Your task to perform on an android device: find snoozed emails in the gmail app Image 0: 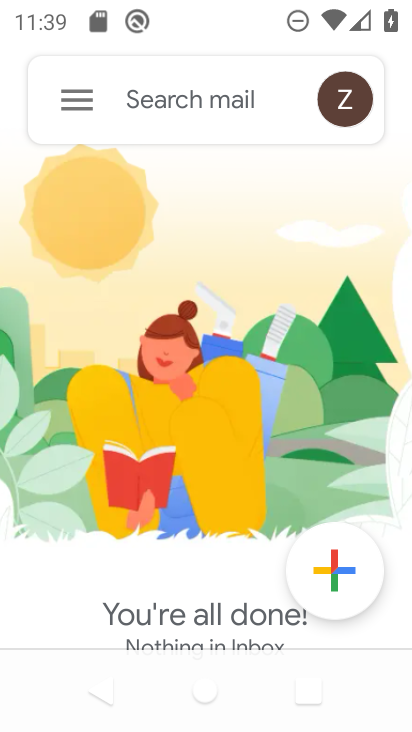
Step 0: press home button
Your task to perform on an android device: find snoozed emails in the gmail app Image 1: 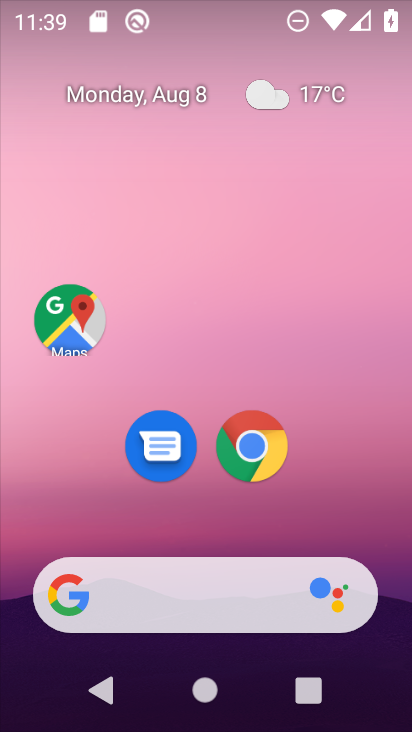
Step 1: drag from (395, 629) to (386, 64)
Your task to perform on an android device: find snoozed emails in the gmail app Image 2: 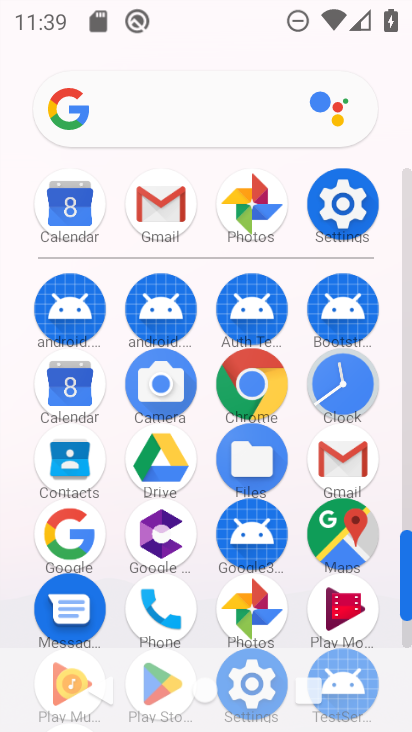
Step 2: click (340, 455)
Your task to perform on an android device: find snoozed emails in the gmail app Image 3: 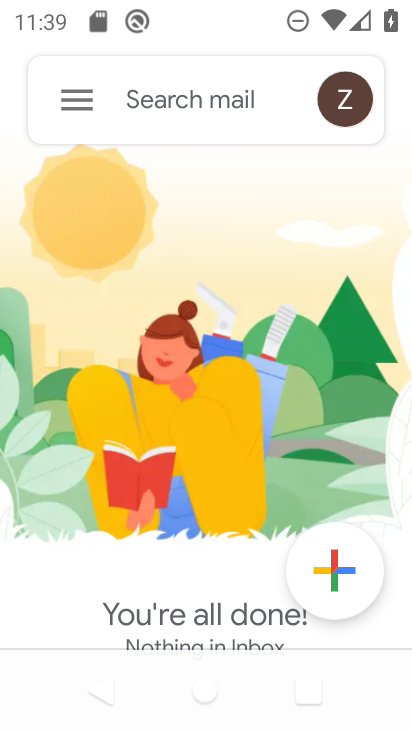
Step 3: click (70, 97)
Your task to perform on an android device: find snoozed emails in the gmail app Image 4: 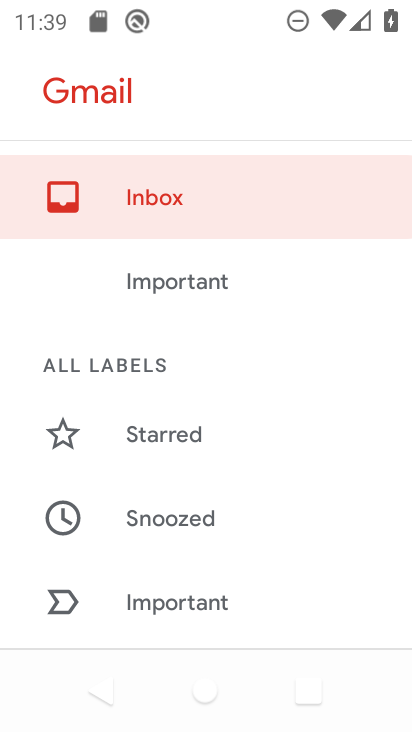
Step 4: click (183, 508)
Your task to perform on an android device: find snoozed emails in the gmail app Image 5: 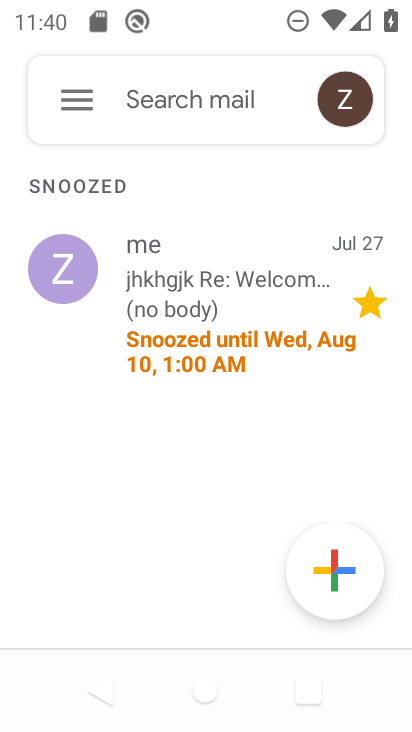
Step 5: task complete